Your task to perform on an android device: open app "Facebook Messenger" (install if not already installed), go to login, and select forgot password Image 0: 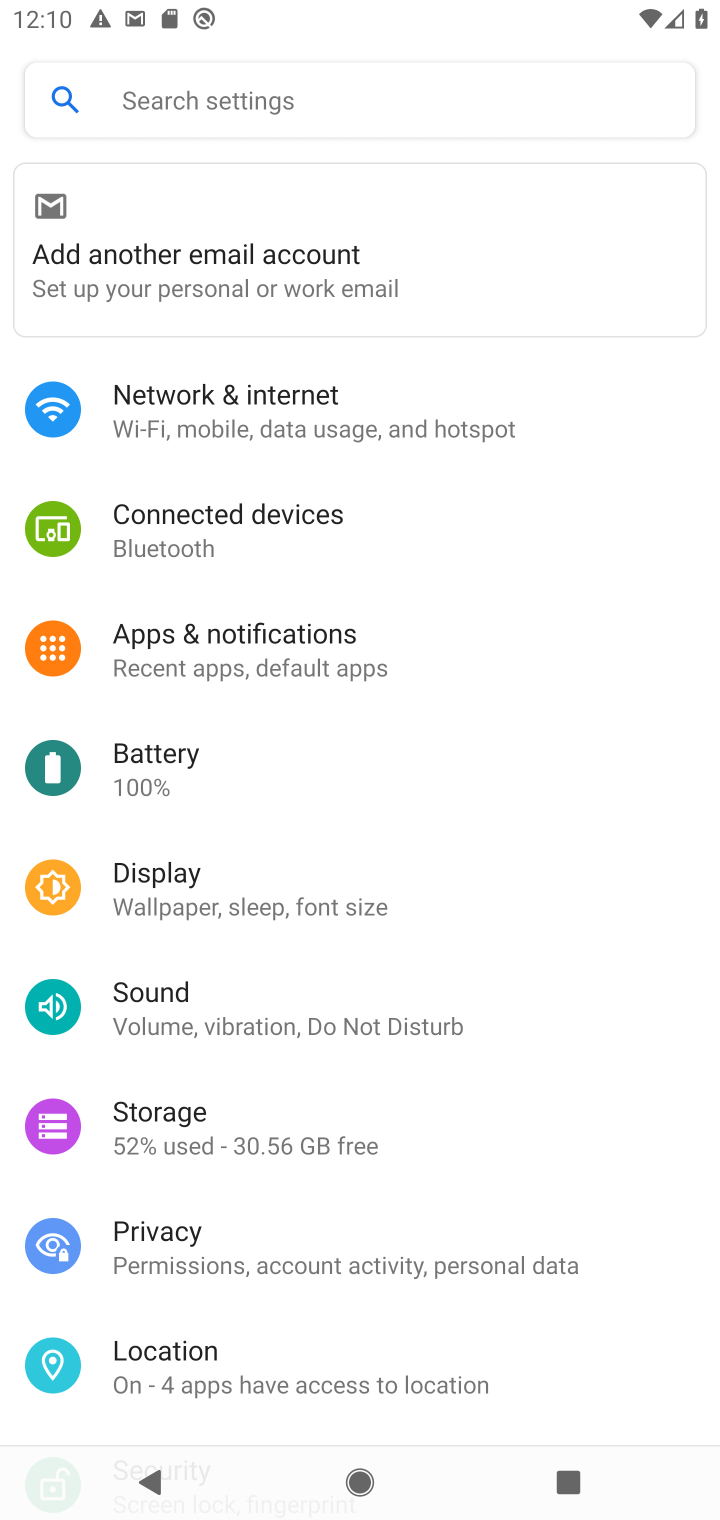
Step 0: press home button
Your task to perform on an android device: open app "Facebook Messenger" (install if not already installed), go to login, and select forgot password Image 1: 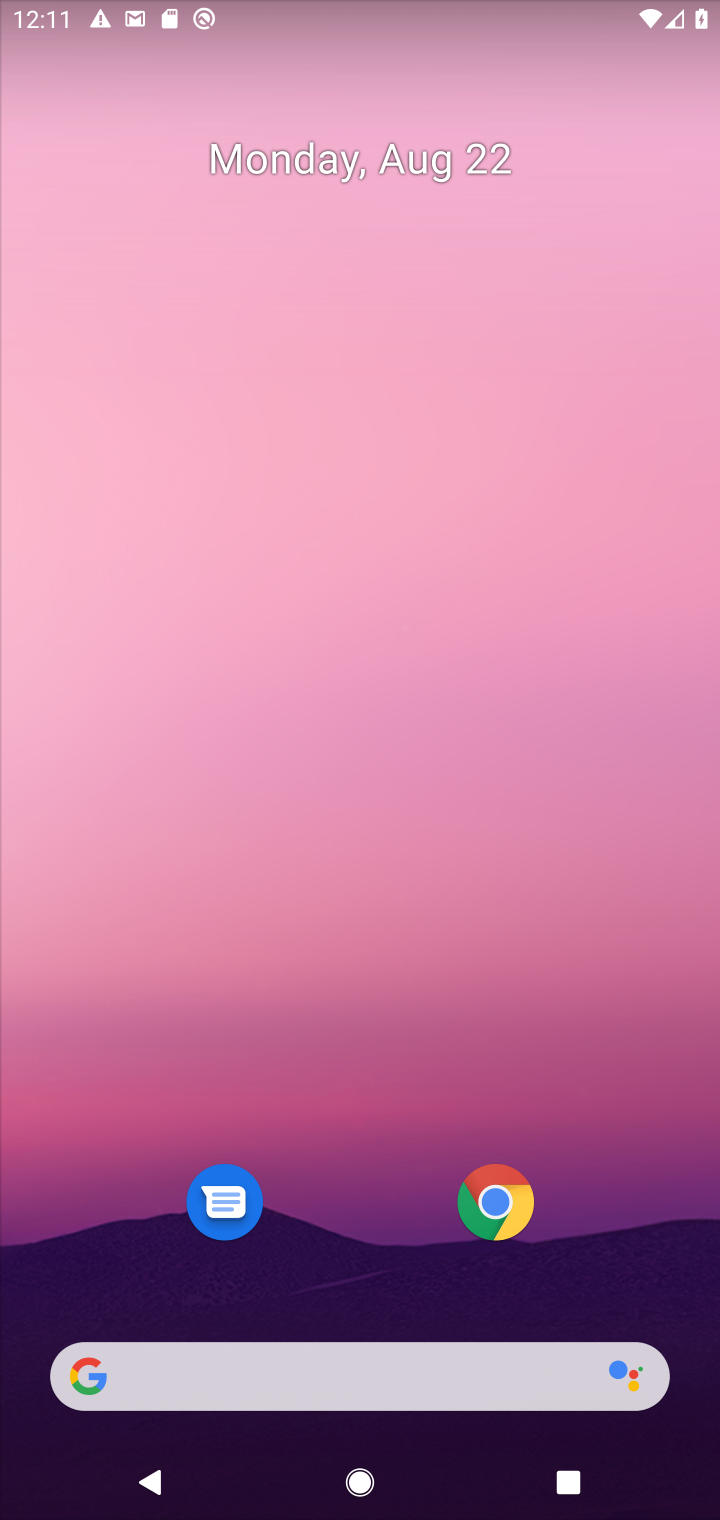
Step 1: drag from (345, 1192) to (341, 159)
Your task to perform on an android device: open app "Facebook Messenger" (install if not already installed), go to login, and select forgot password Image 2: 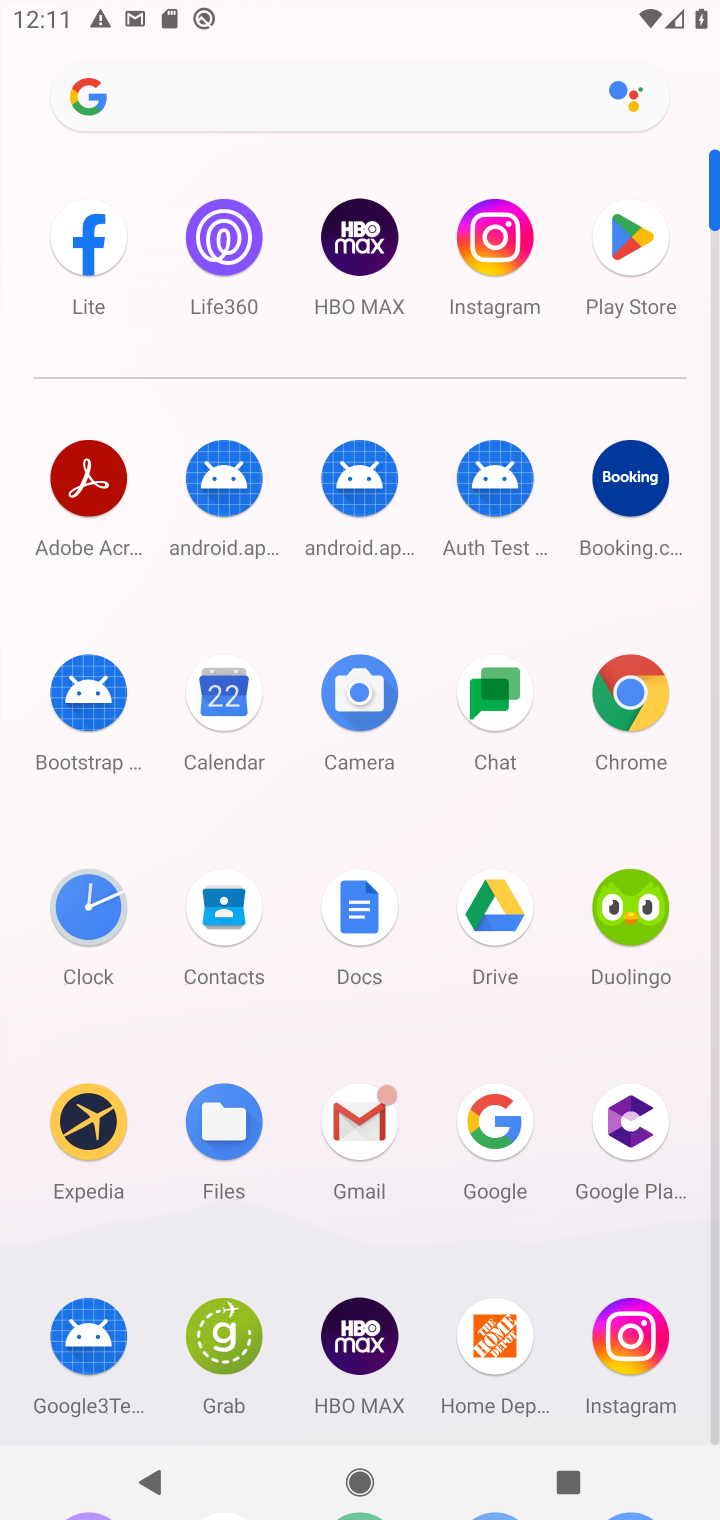
Step 2: click (632, 240)
Your task to perform on an android device: open app "Facebook Messenger" (install if not already installed), go to login, and select forgot password Image 3: 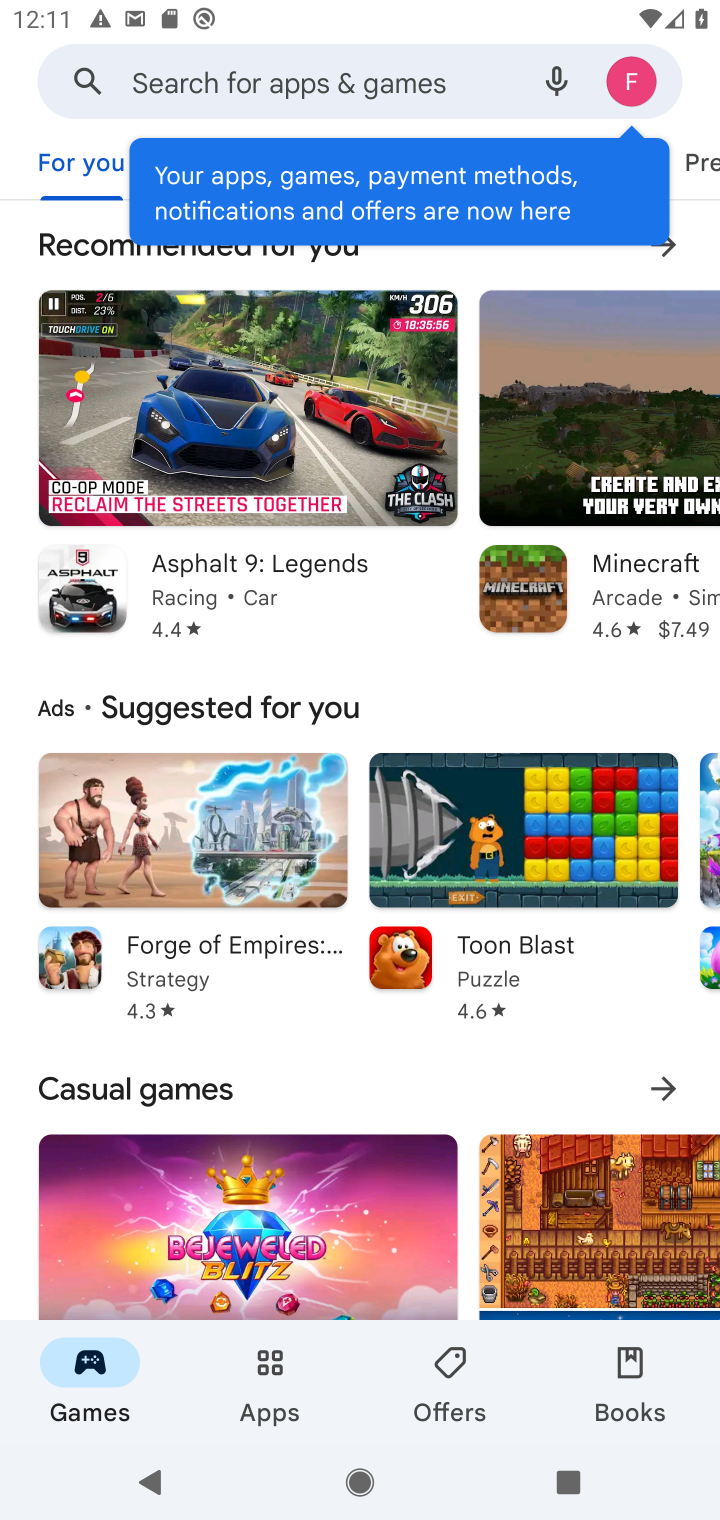
Step 3: click (430, 81)
Your task to perform on an android device: open app "Facebook Messenger" (install if not already installed), go to login, and select forgot password Image 4: 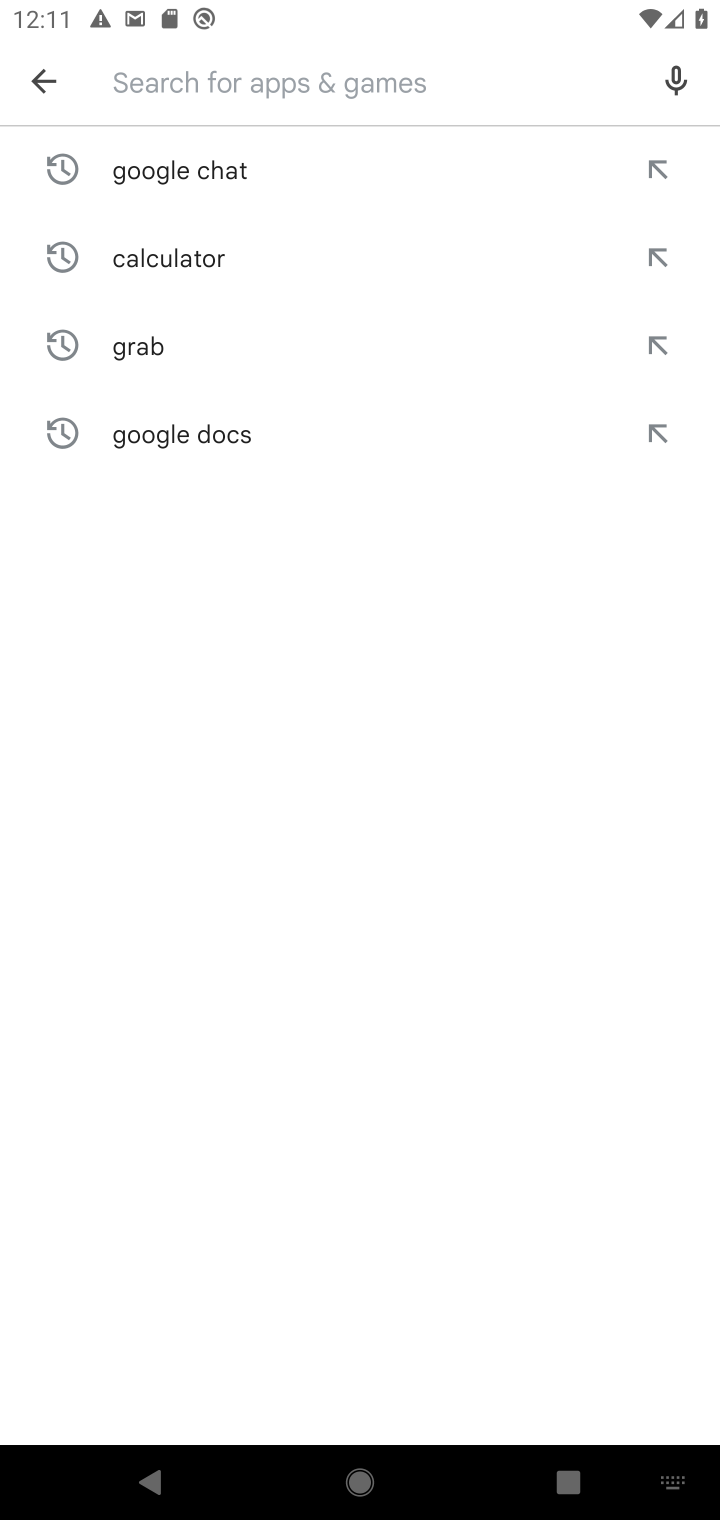
Step 4: type "Facebook Messenger"
Your task to perform on an android device: open app "Facebook Messenger" (install if not already installed), go to login, and select forgot password Image 5: 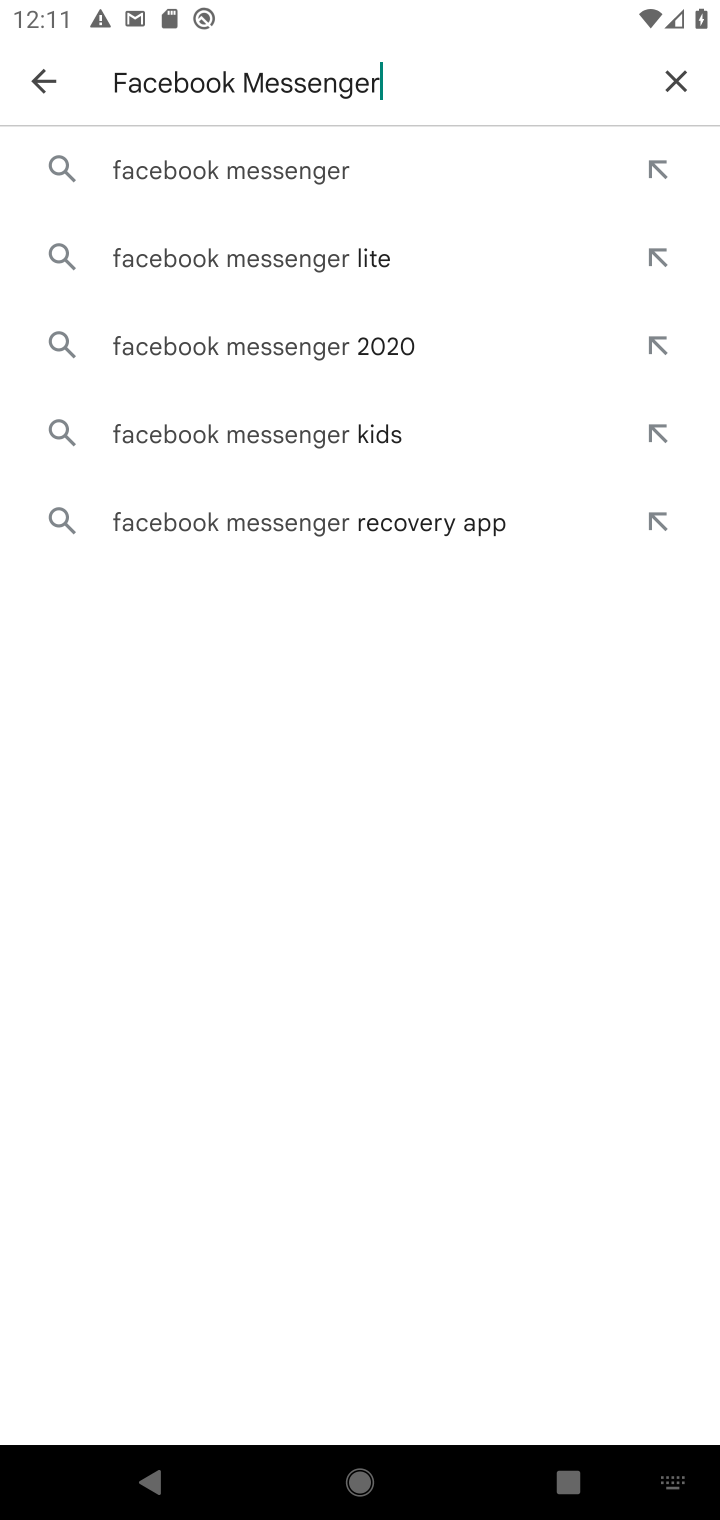
Step 5: click (184, 165)
Your task to perform on an android device: open app "Facebook Messenger" (install if not already installed), go to login, and select forgot password Image 6: 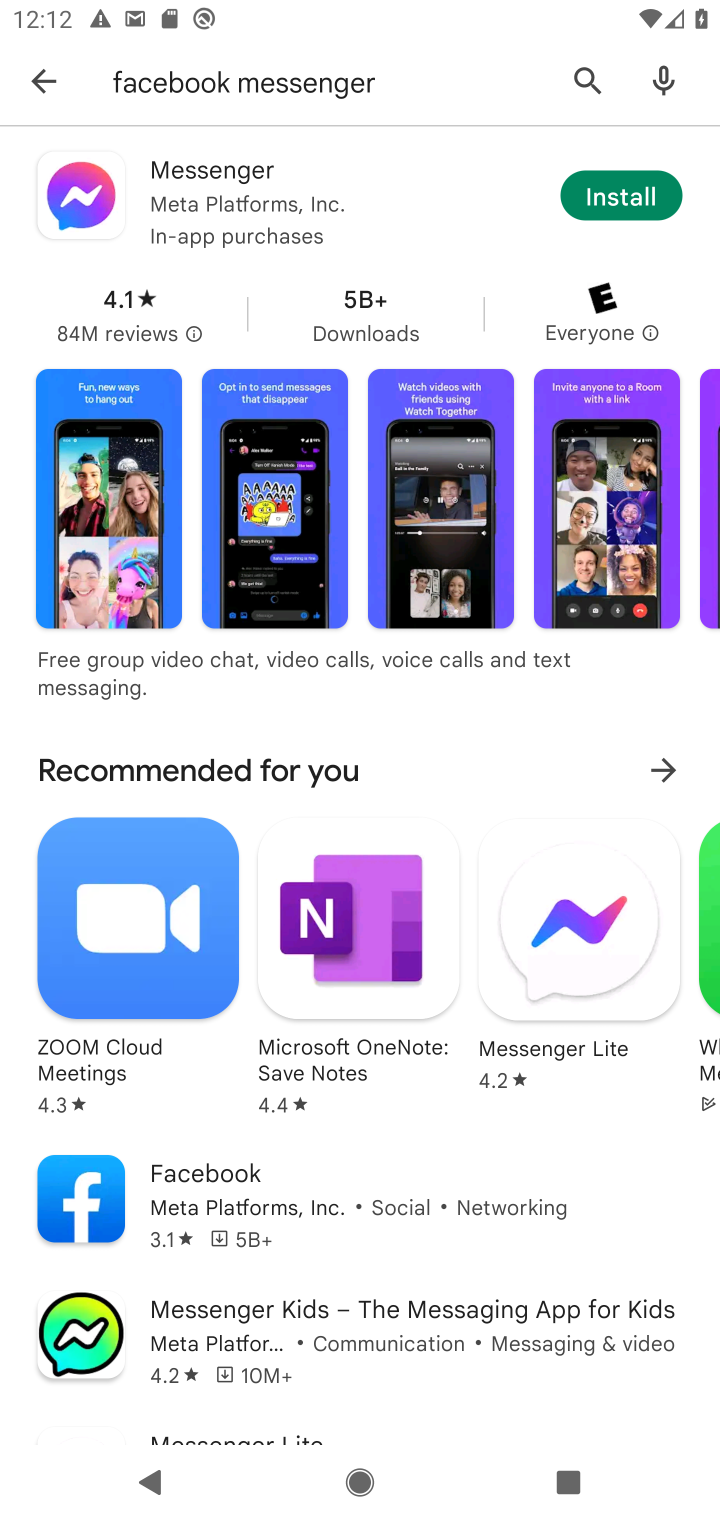
Step 6: click (625, 198)
Your task to perform on an android device: open app "Facebook Messenger" (install if not already installed), go to login, and select forgot password Image 7: 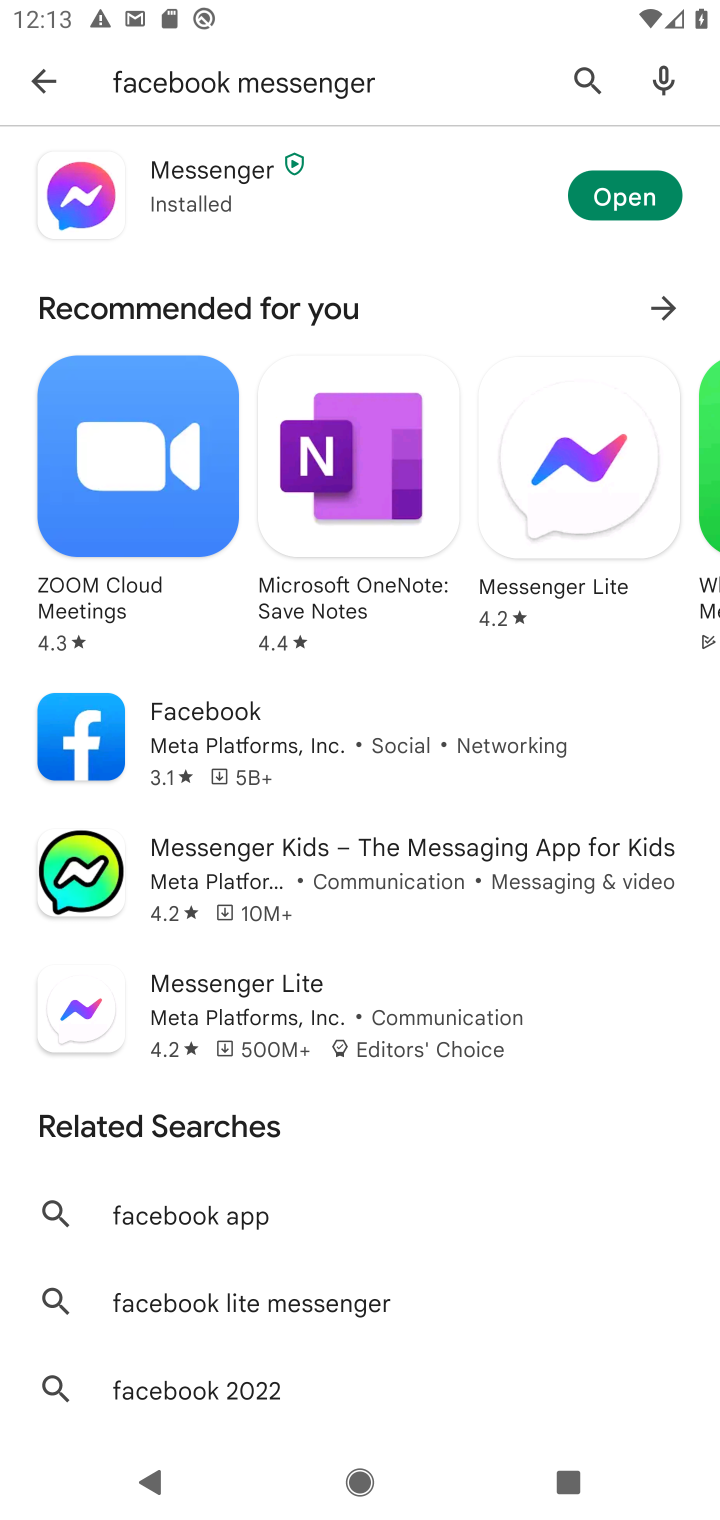
Step 7: click (608, 197)
Your task to perform on an android device: open app "Facebook Messenger" (install if not already installed), go to login, and select forgot password Image 8: 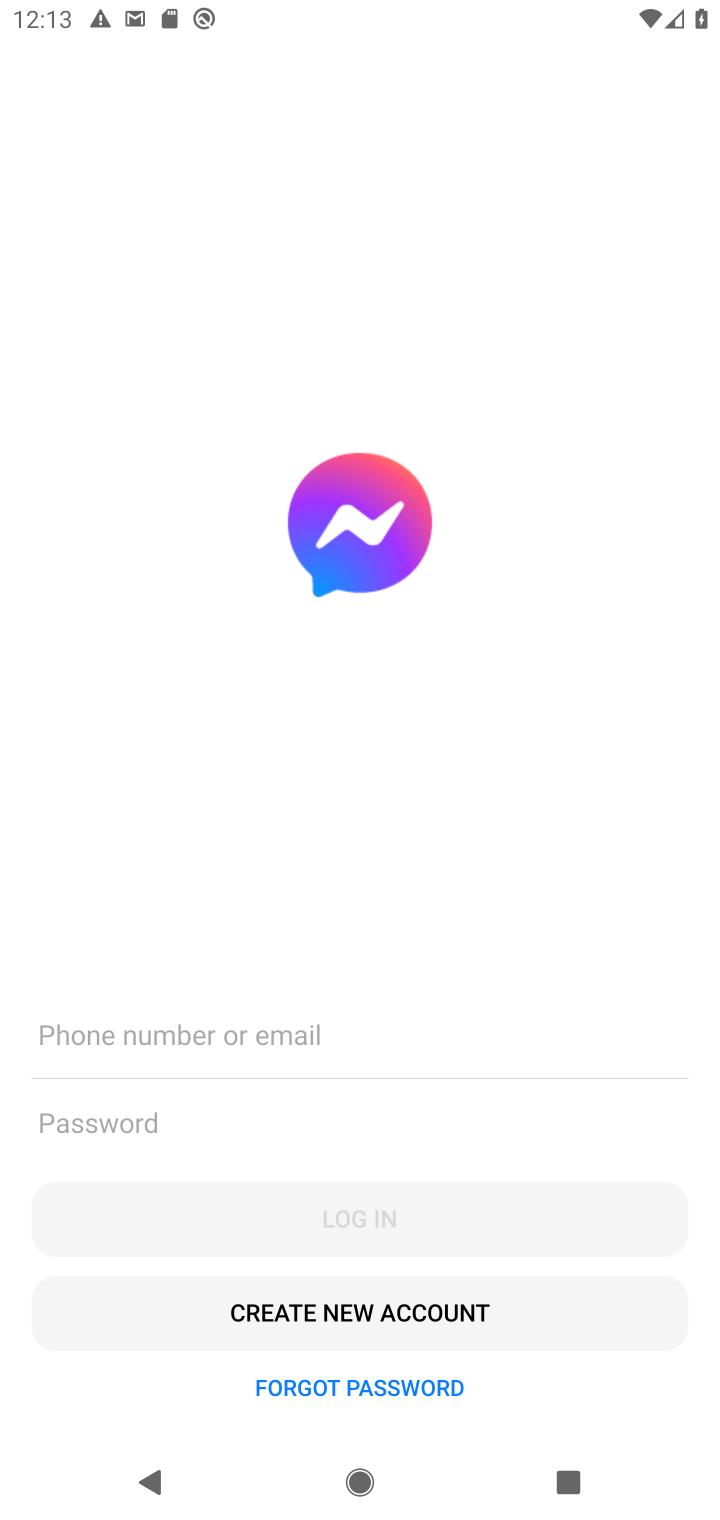
Step 8: click (393, 1382)
Your task to perform on an android device: open app "Facebook Messenger" (install if not already installed), go to login, and select forgot password Image 9: 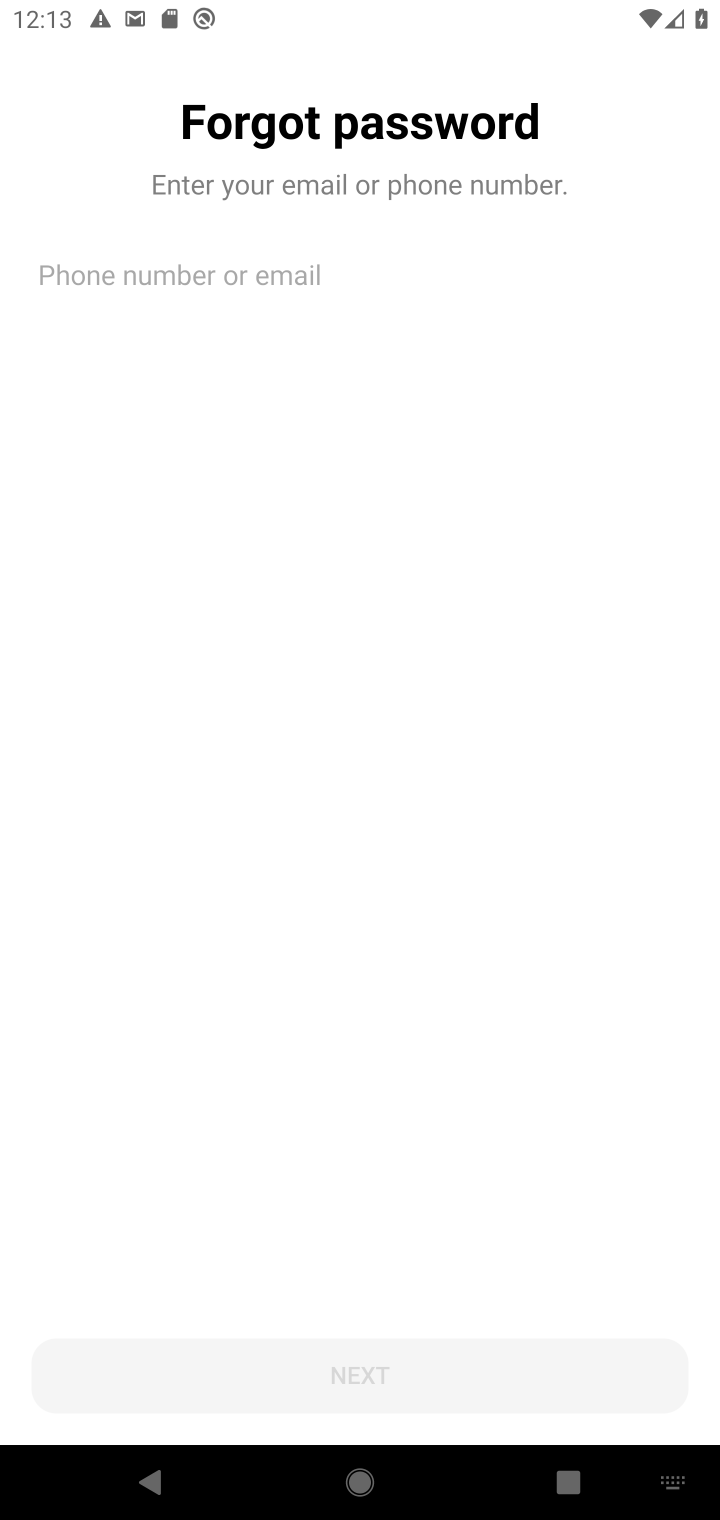
Step 9: task complete